Your task to perform on an android device: toggle show notifications on the lock screen Image 0: 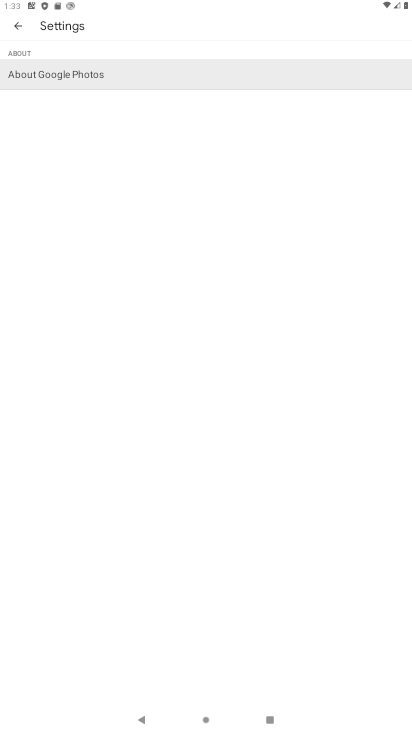
Step 0: press home button
Your task to perform on an android device: toggle show notifications on the lock screen Image 1: 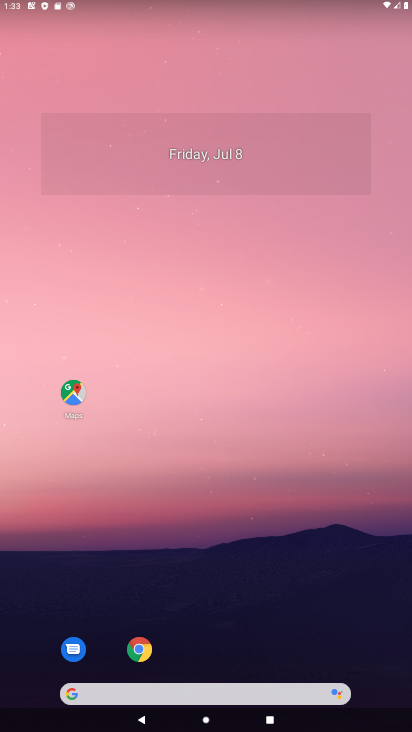
Step 1: drag from (32, 699) to (181, 83)
Your task to perform on an android device: toggle show notifications on the lock screen Image 2: 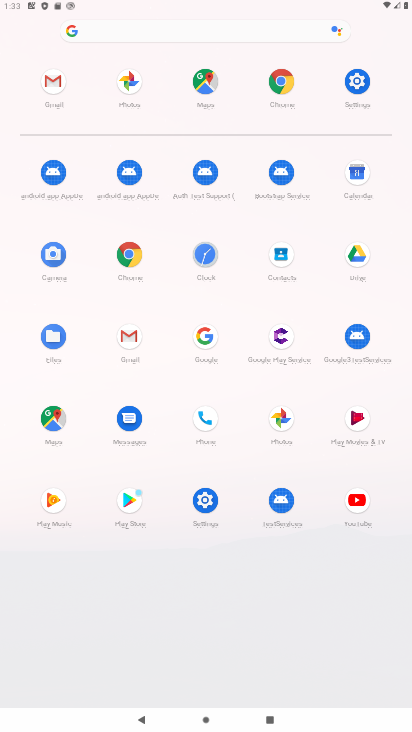
Step 2: click (196, 497)
Your task to perform on an android device: toggle show notifications on the lock screen Image 3: 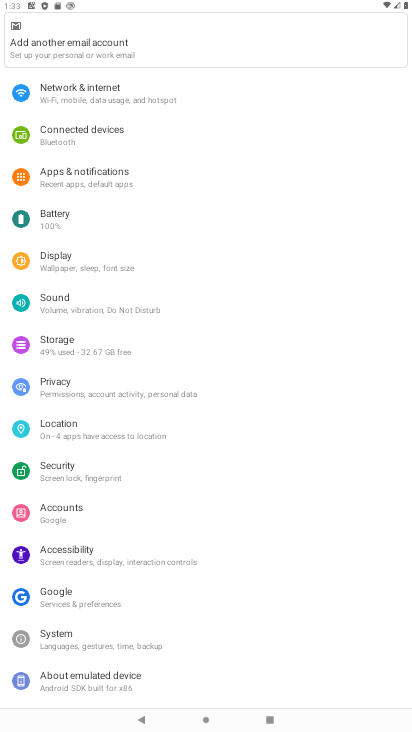
Step 3: click (59, 469)
Your task to perform on an android device: toggle show notifications on the lock screen Image 4: 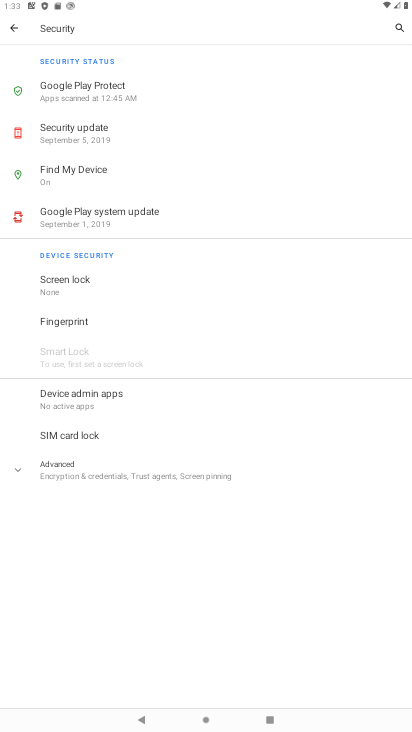
Step 4: click (64, 285)
Your task to perform on an android device: toggle show notifications on the lock screen Image 5: 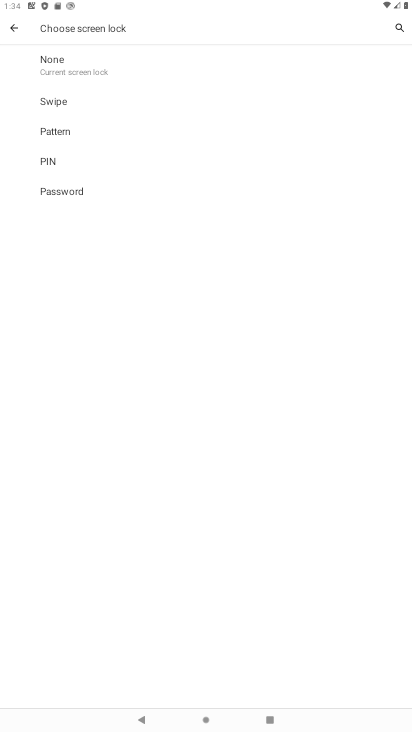
Step 5: click (57, 54)
Your task to perform on an android device: toggle show notifications on the lock screen Image 6: 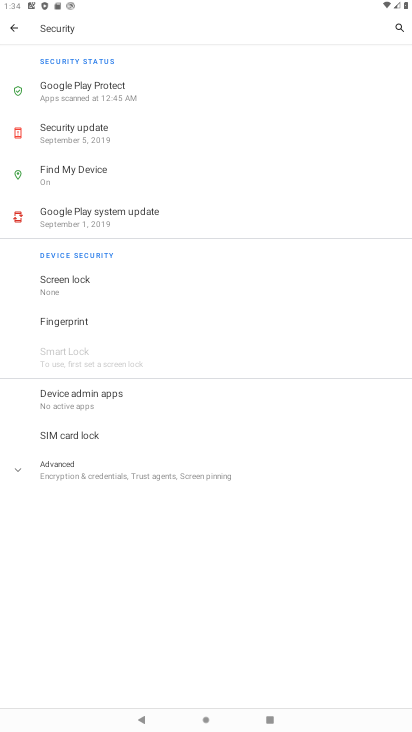
Step 6: click (89, 285)
Your task to perform on an android device: toggle show notifications on the lock screen Image 7: 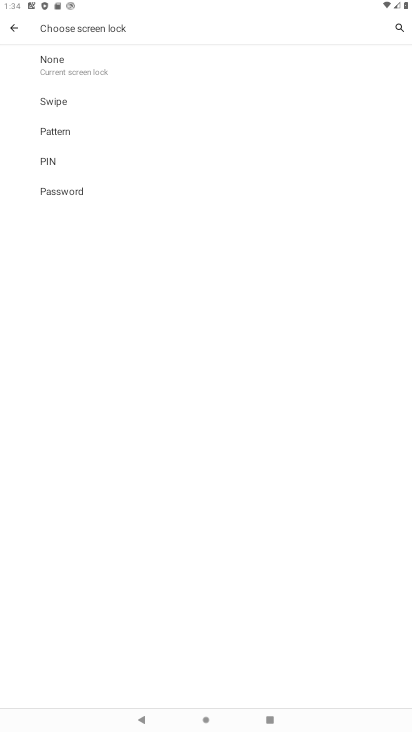
Step 7: task complete